Your task to perform on an android device: Open sound settings Image 0: 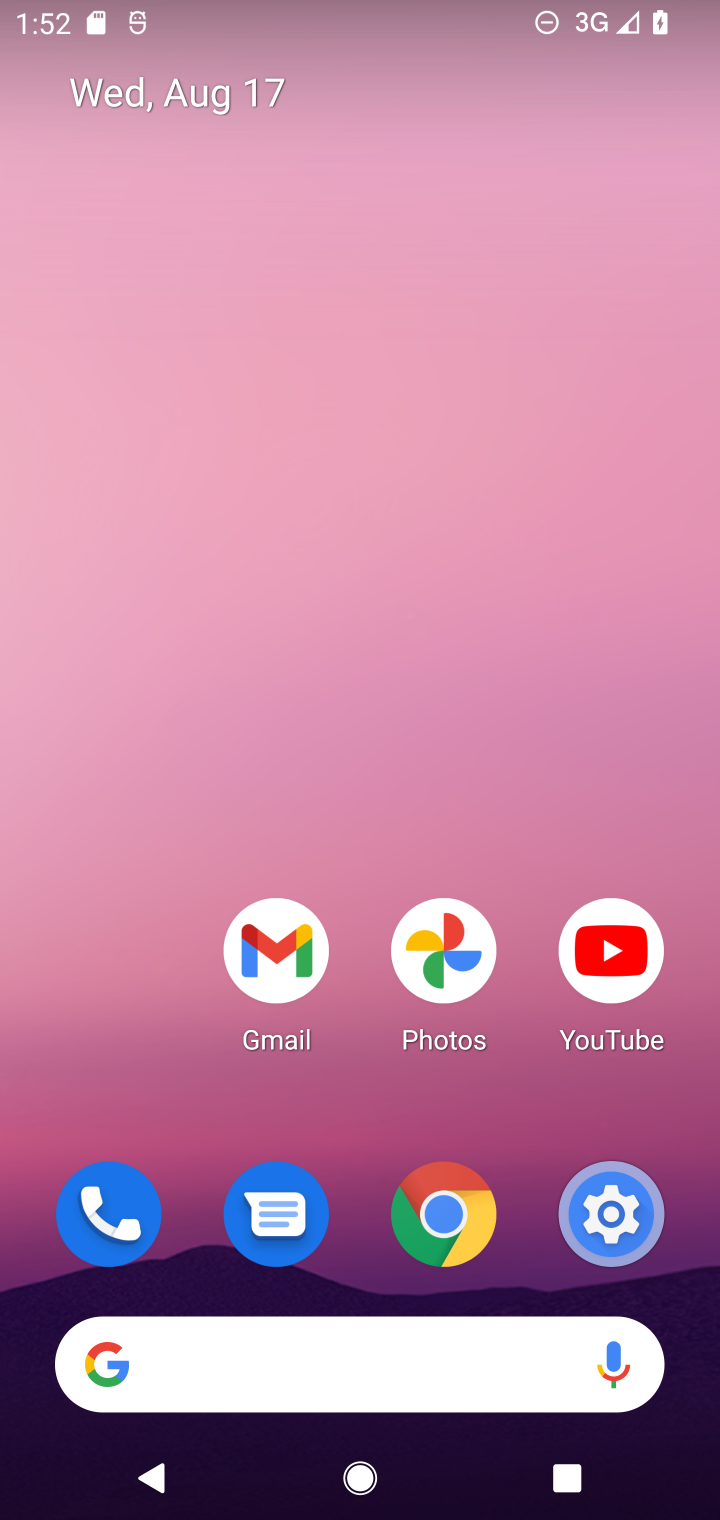
Step 0: click (622, 1211)
Your task to perform on an android device: Open sound settings Image 1: 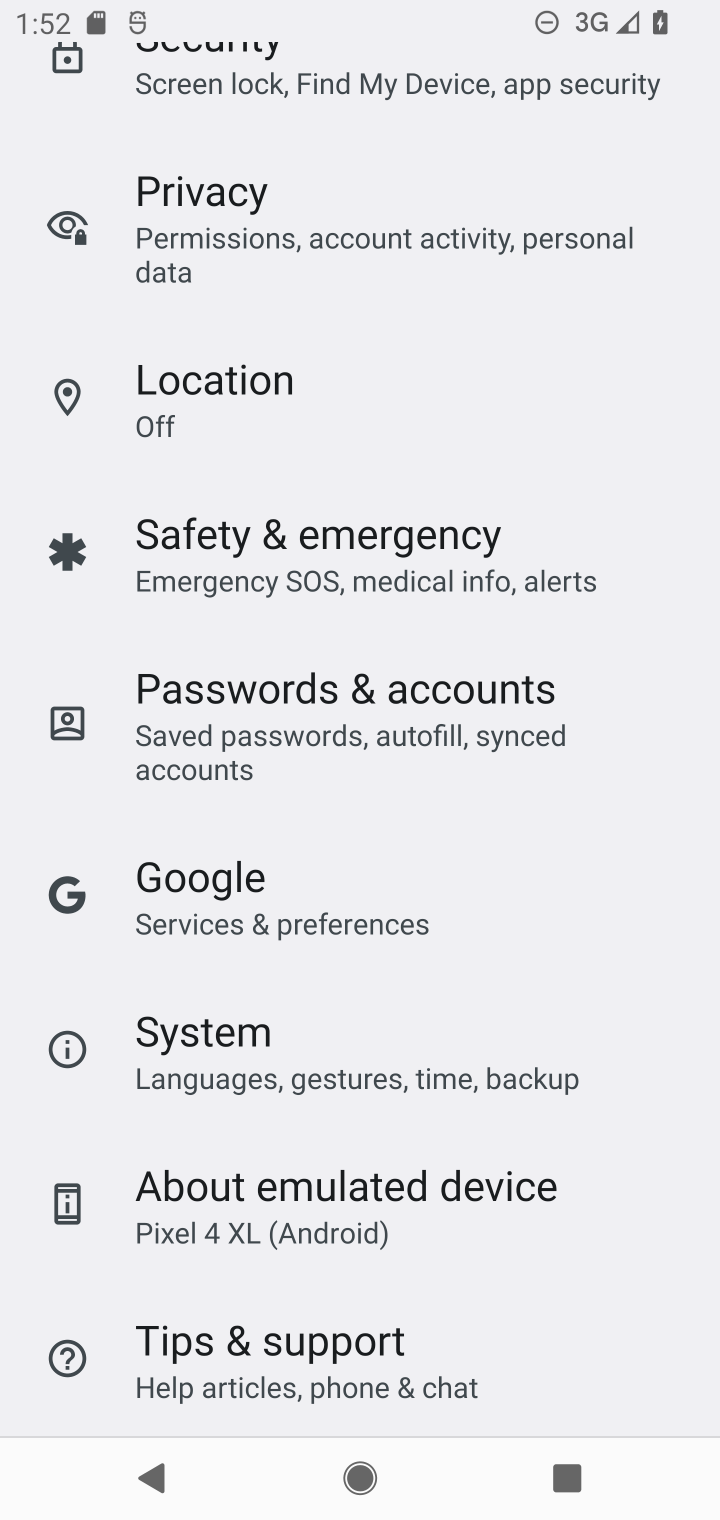
Step 1: drag from (410, 328) to (298, 1045)
Your task to perform on an android device: Open sound settings Image 2: 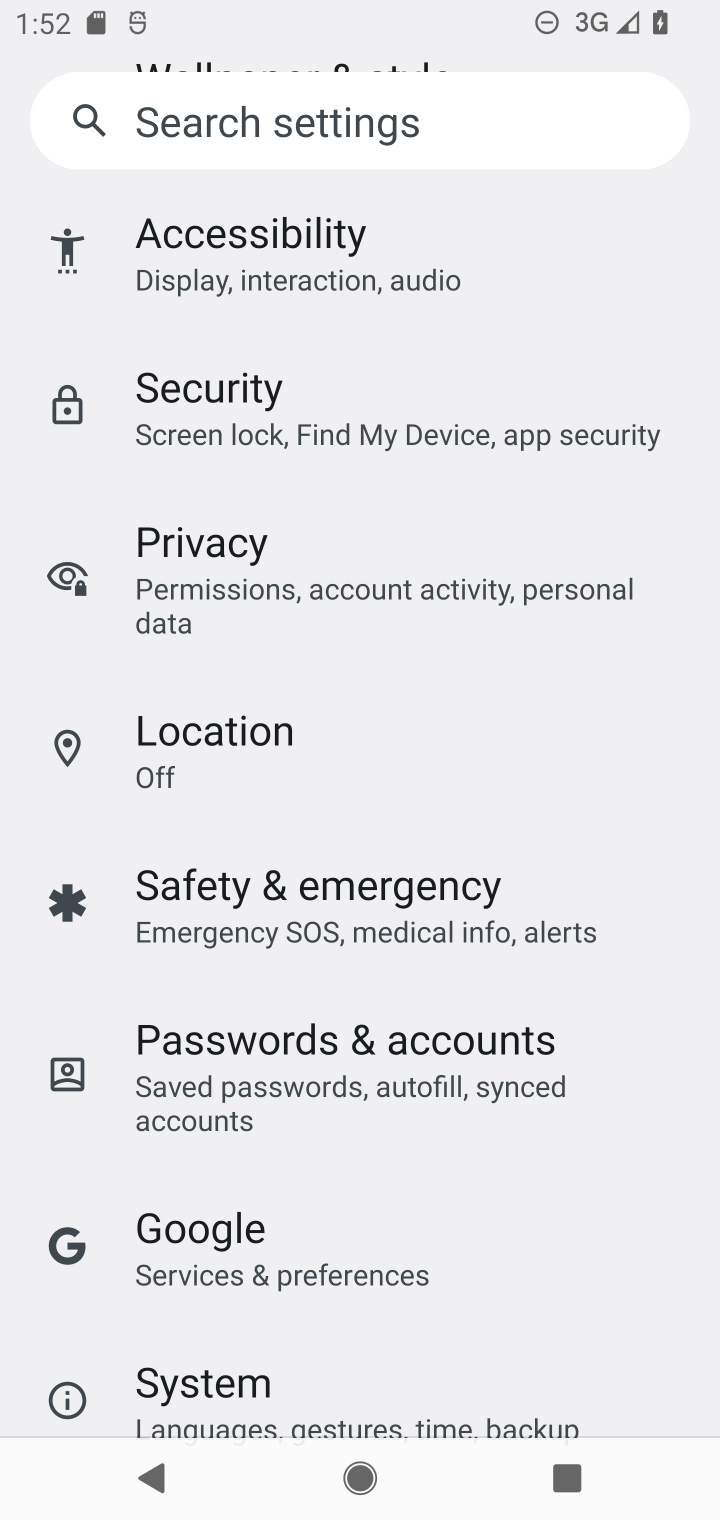
Step 2: drag from (350, 325) to (456, 1294)
Your task to perform on an android device: Open sound settings Image 3: 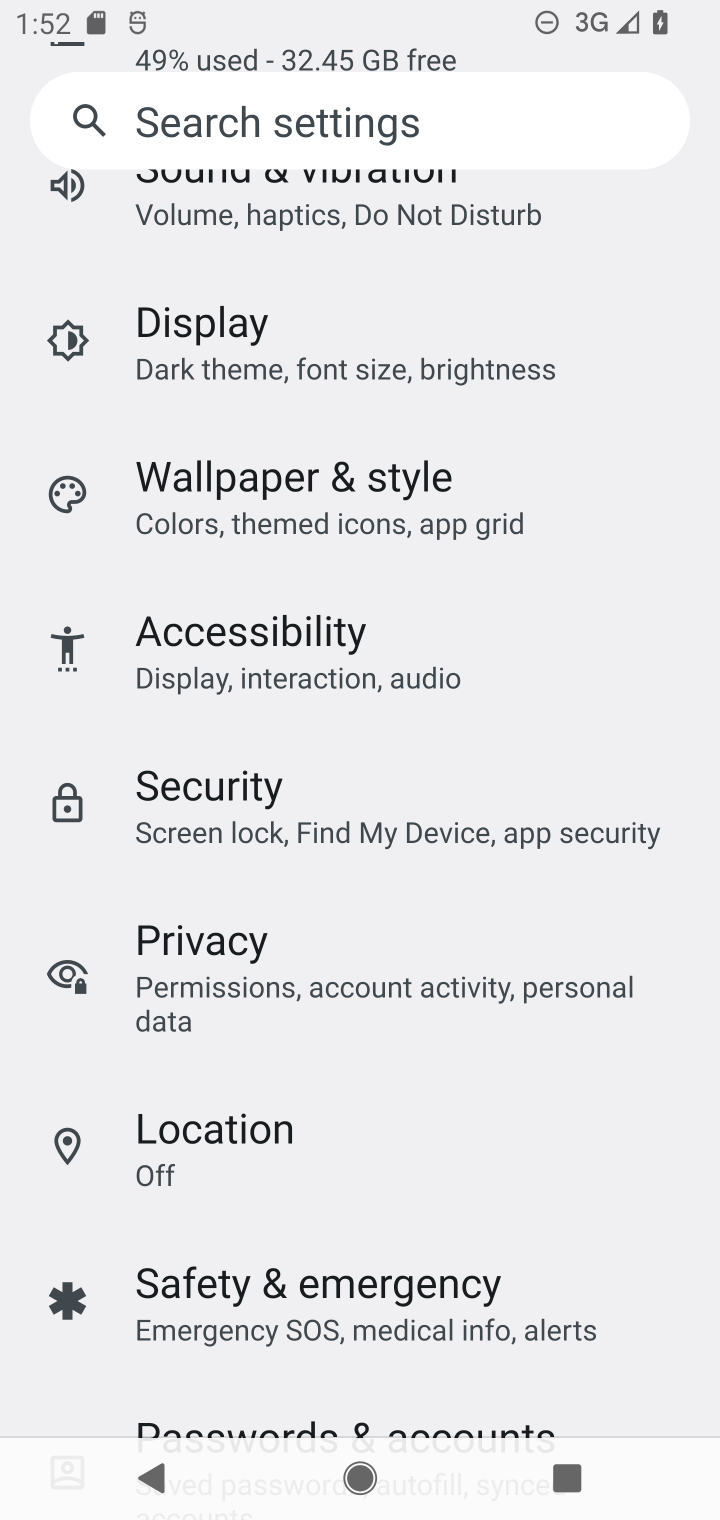
Step 3: drag from (441, 680) to (400, 1224)
Your task to perform on an android device: Open sound settings Image 4: 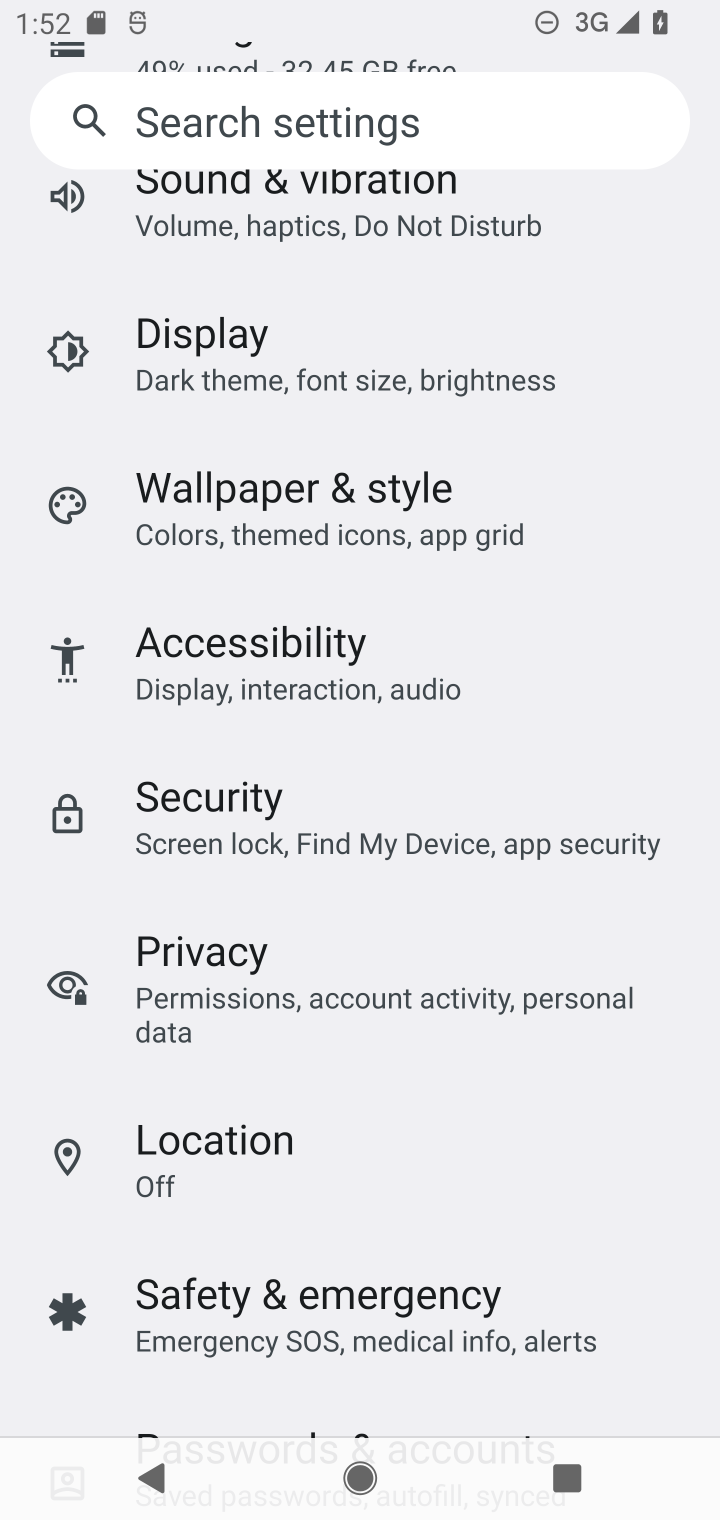
Step 4: drag from (399, 301) to (325, 1168)
Your task to perform on an android device: Open sound settings Image 5: 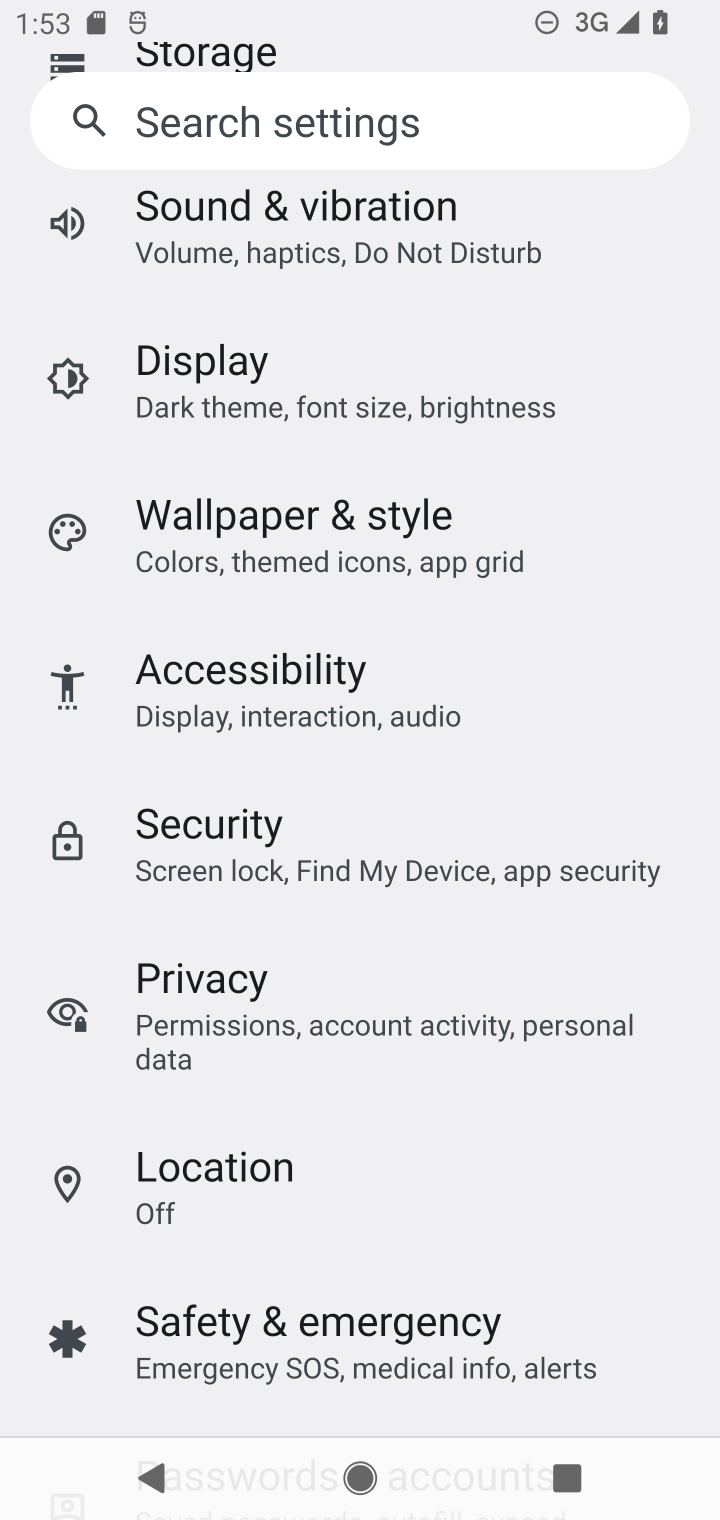
Step 5: click (207, 205)
Your task to perform on an android device: Open sound settings Image 6: 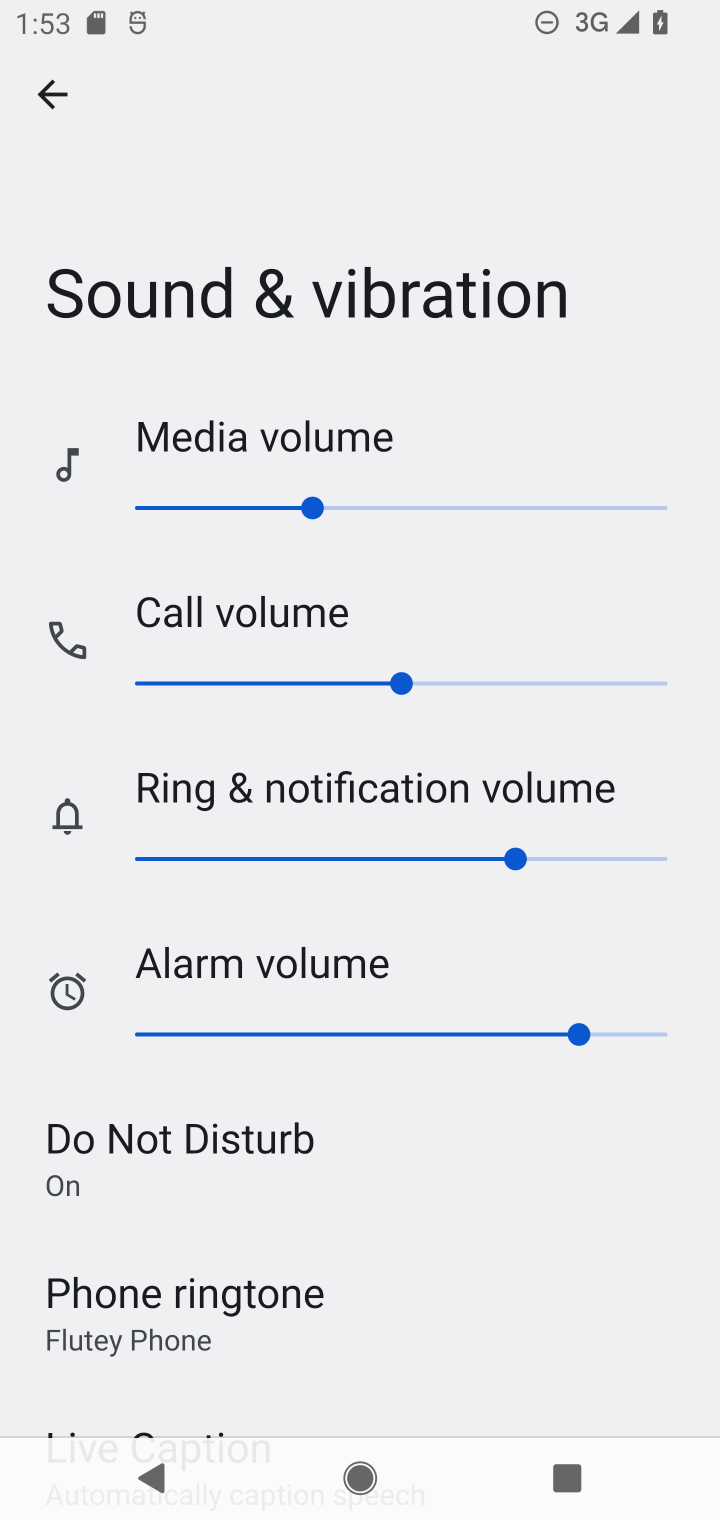
Step 6: task complete